Your task to perform on an android device: Open the calendar and show me this week's events? Image 0: 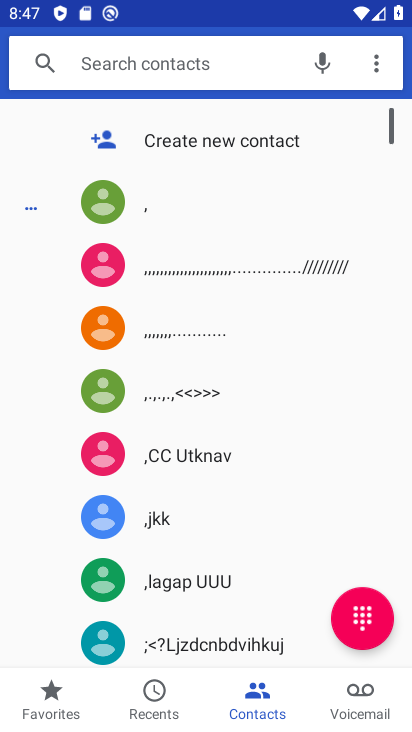
Step 0: press home button
Your task to perform on an android device: Open the calendar and show me this week's events? Image 1: 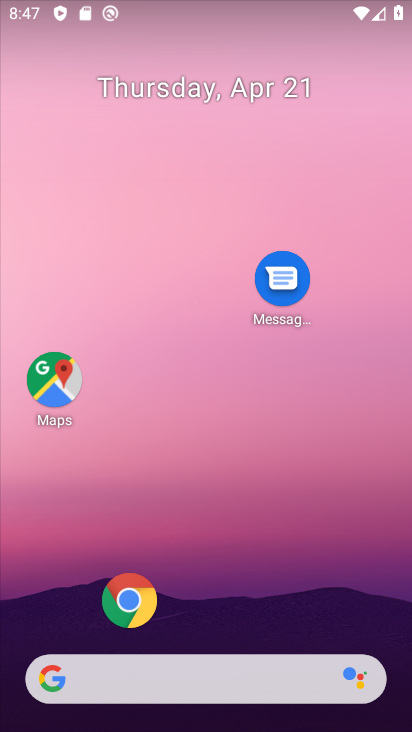
Step 1: drag from (32, 538) to (201, 175)
Your task to perform on an android device: Open the calendar and show me this week's events? Image 2: 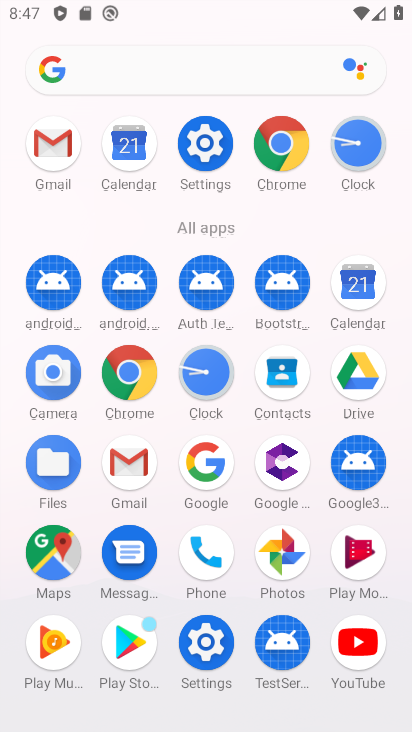
Step 2: click (350, 284)
Your task to perform on an android device: Open the calendar and show me this week's events? Image 3: 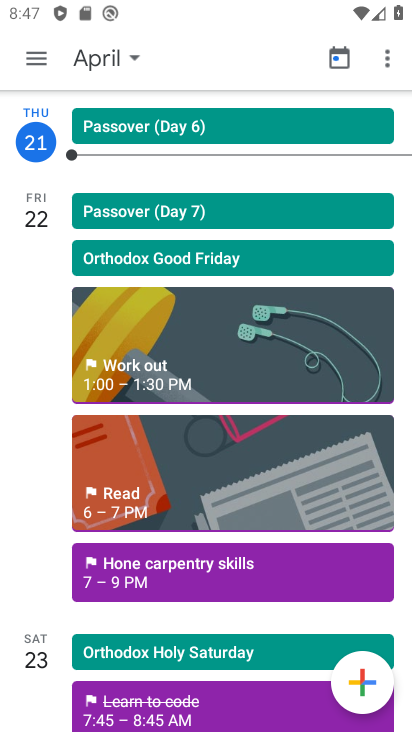
Step 3: click (99, 59)
Your task to perform on an android device: Open the calendar and show me this week's events? Image 4: 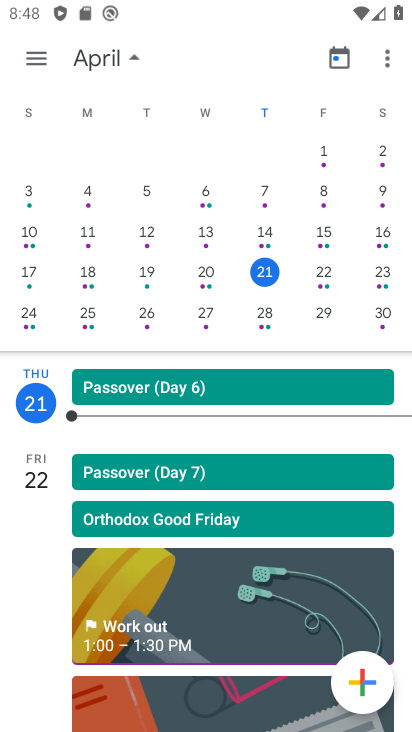
Step 4: click (321, 262)
Your task to perform on an android device: Open the calendar and show me this week's events? Image 5: 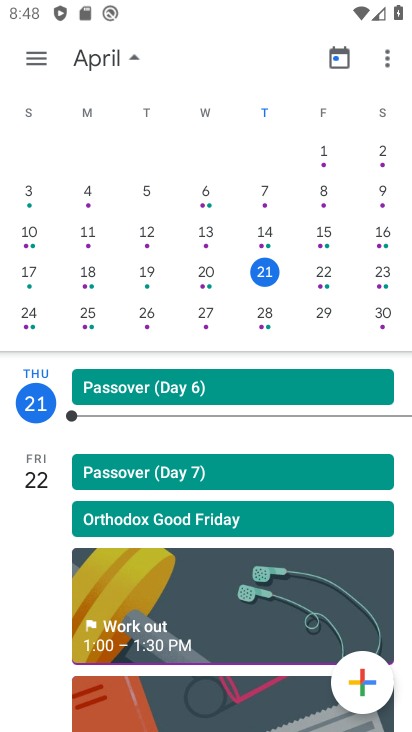
Step 5: click (381, 275)
Your task to perform on an android device: Open the calendar and show me this week's events? Image 6: 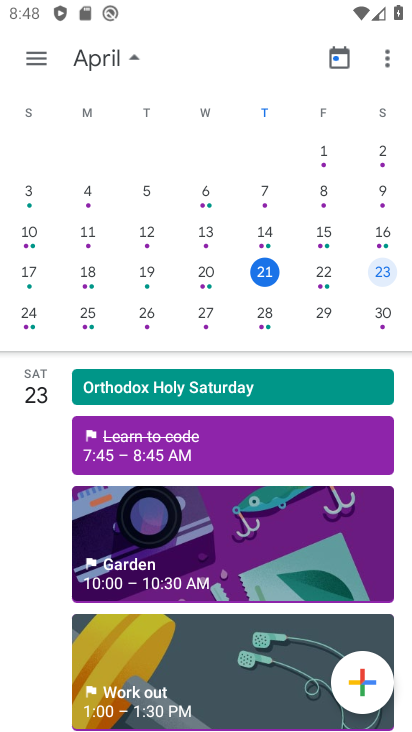
Step 6: click (314, 272)
Your task to perform on an android device: Open the calendar and show me this week's events? Image 7: 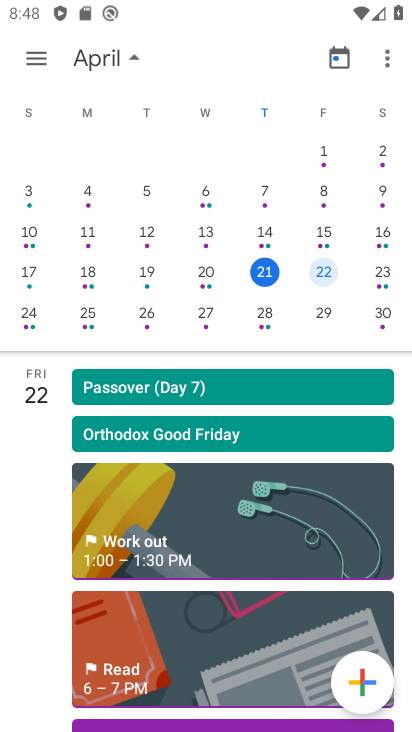
Step 7: task complete